Your task to perform on an android device: Open calendar and show me the second week of next month Image 0: 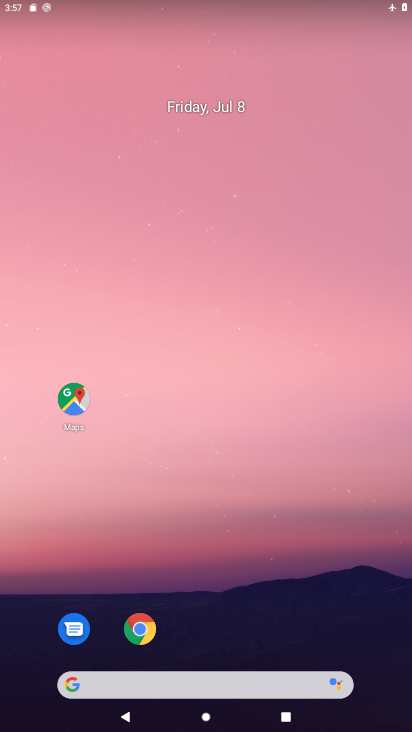
Step 0: drag from (137, 638) to (179, 287)
Your task to perform on an android device: Open calendar and show me the second week of next month Image 1: 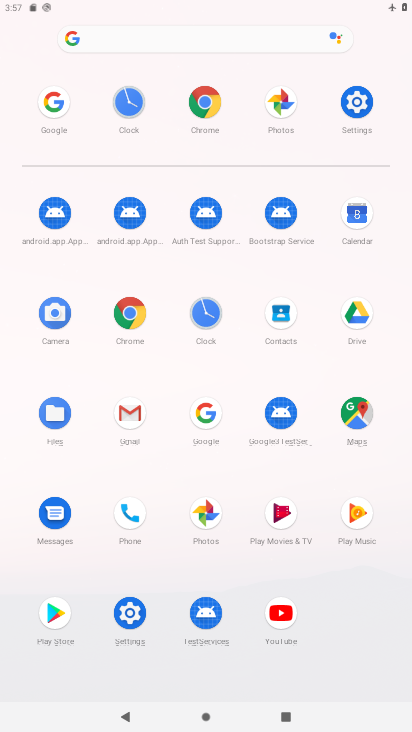
Step 1: click (362, 213)
Your task to perform on an android device: Open calendar and show me the second week of next month Image 2: 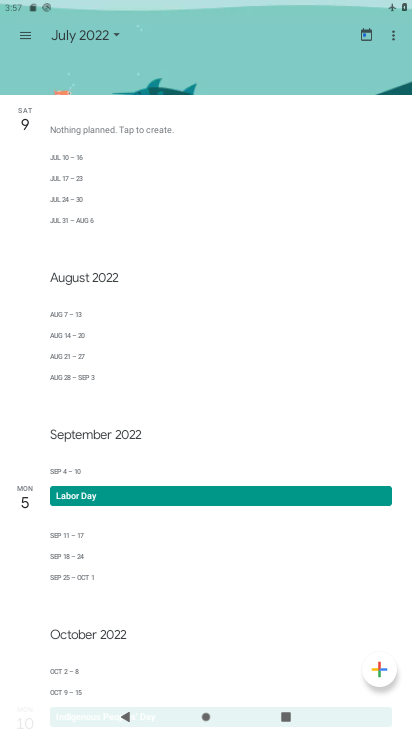
Step 2: click (28, 39)
Your task to perform on an android device: Open calendar and show me the second week of next month Image 3: 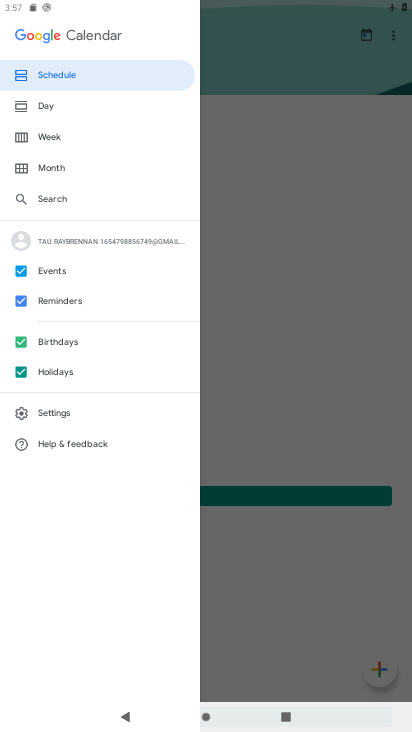
Step 3: click (69, 164)
Your task to perform on an android device: Open calendar and show me the second week of next month Image 4: 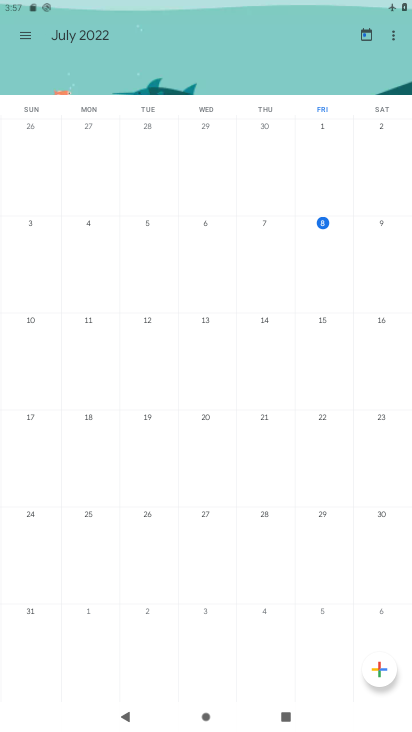
Step 4: task complete